Your task to perform on an android device: What's the weather today? Image 0: 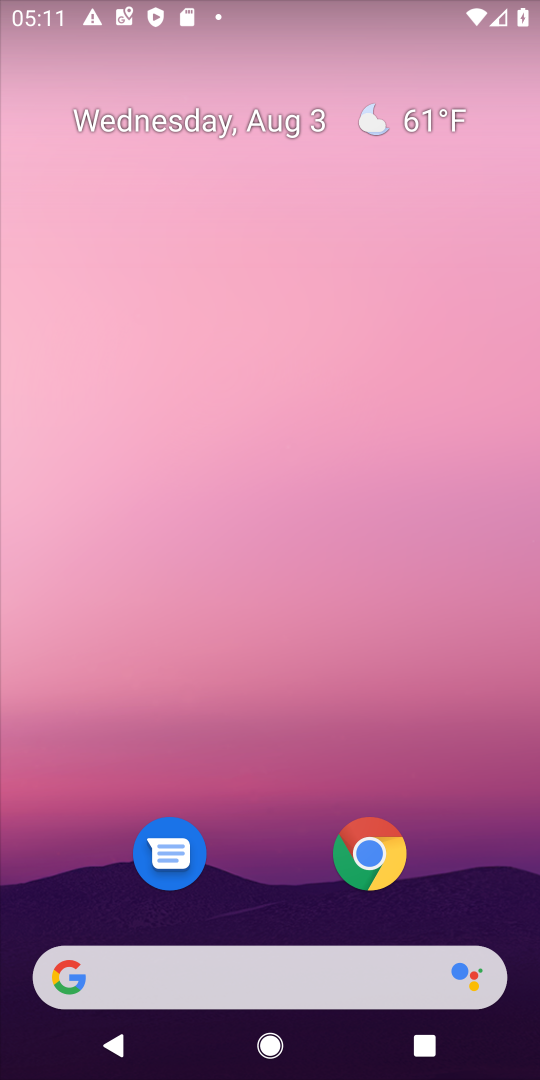
Step 0: drag from (266, 845) to (266, 0)
Your task to perform on an android device: What's the weather today? Image 1: 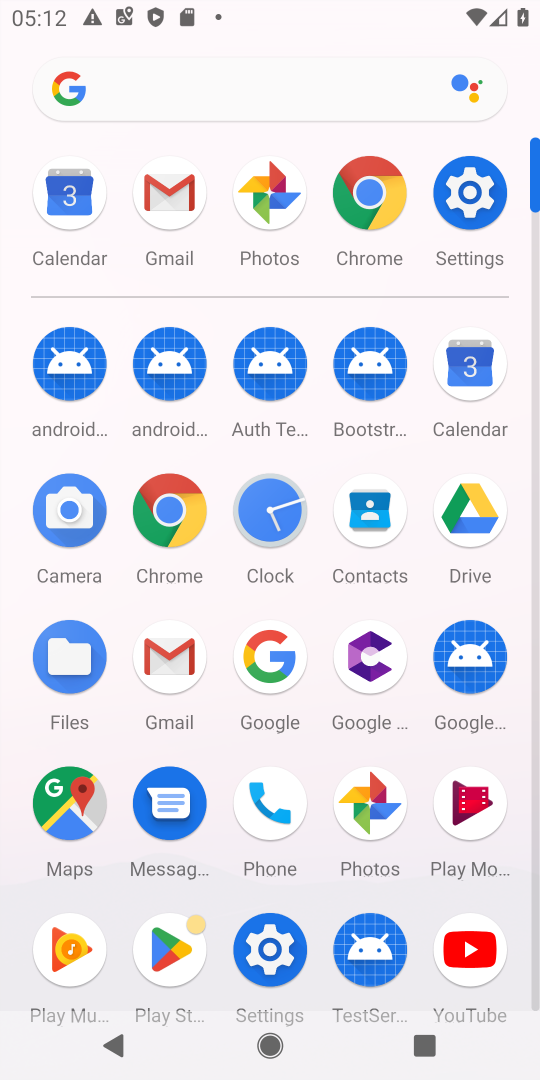
Step 1: click (283, 642)
Your task to perform on an android device: What's the weather today? Image 2: 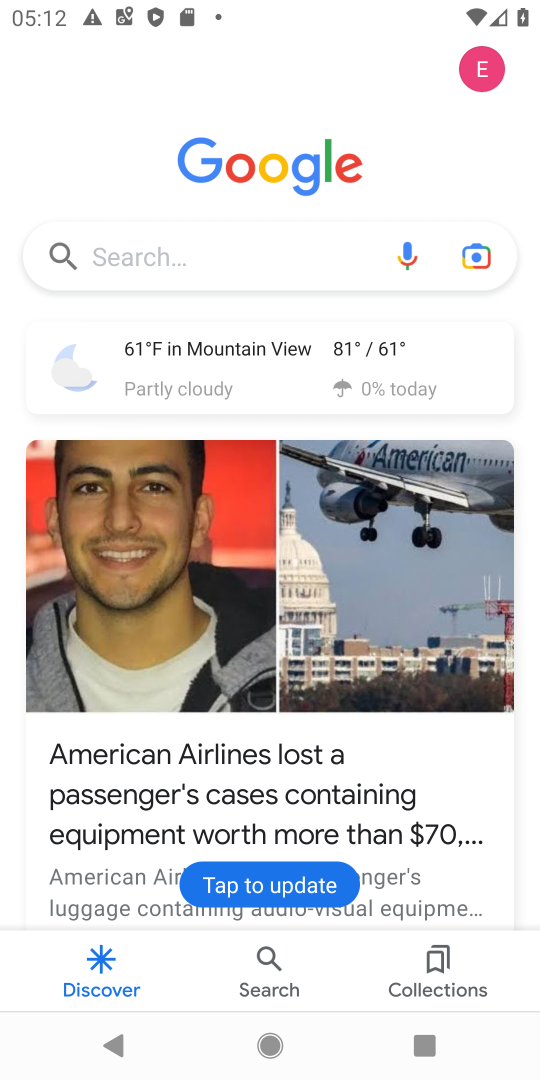
Step 2: click (137, 358)
Your task to perform on an android device: What's the weather today? Image 3: 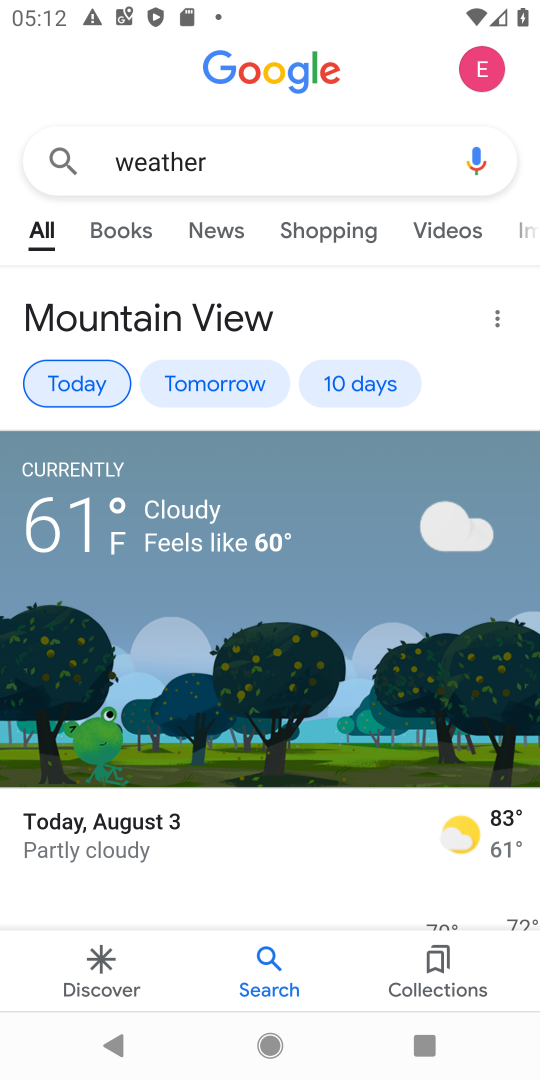
Step 3: click (65, 379)
Your task to perform on an android device: What's the weather today? Image 4: 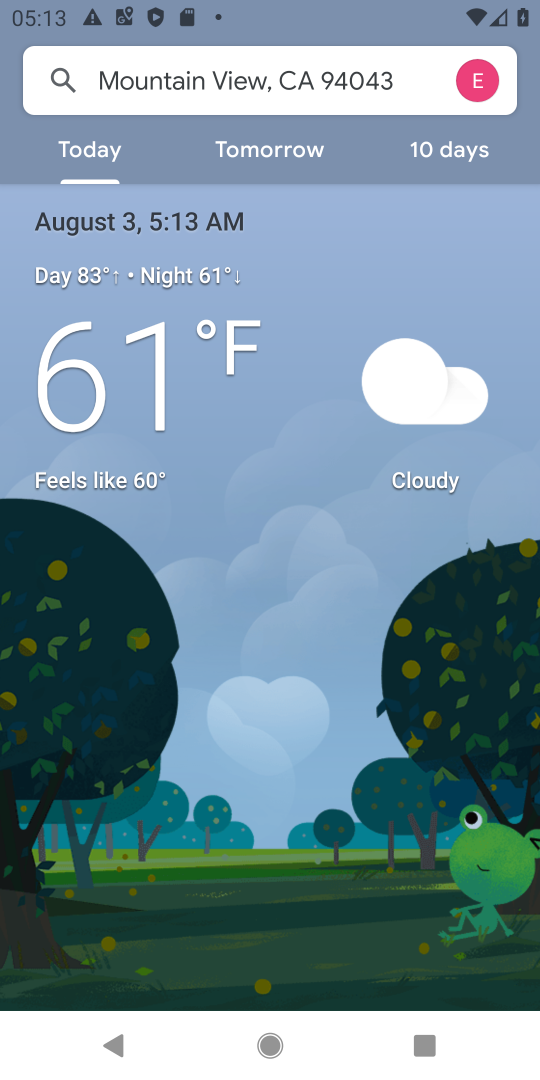
Step 4: task complete